Your task to perform on an android device: Turn off the flashlight Image 0: 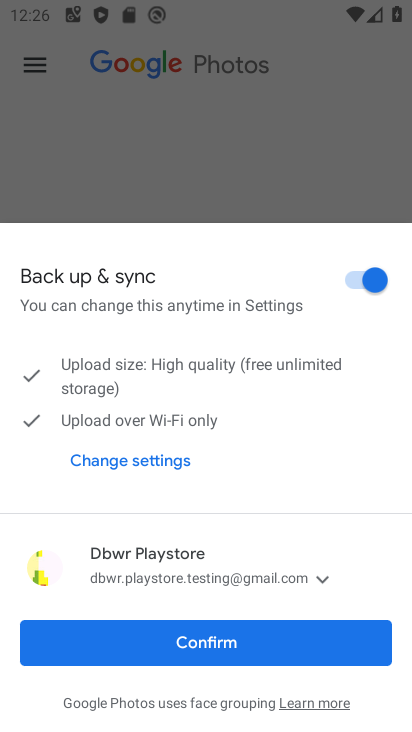
Step 0: press home button
Your task to perform on an android device: Turn off the flashlight Image 1: 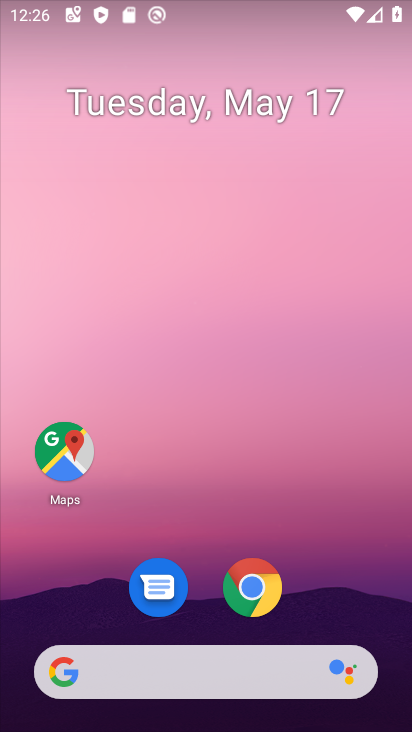
Step 1: drag from (205, 635) to (153, 7)
Your task to perform on an android device: Turn off the flashlight Image 2: 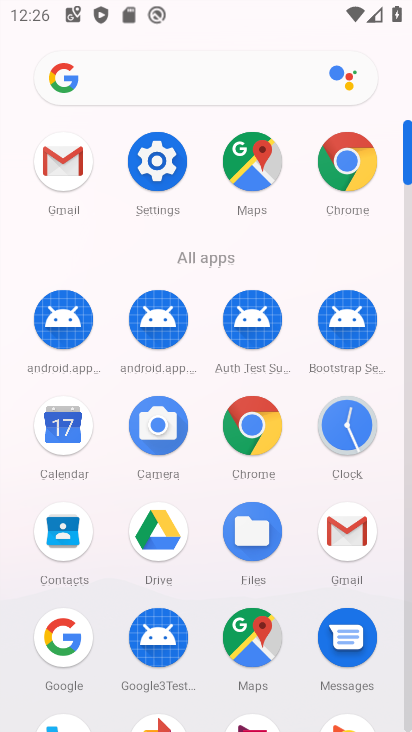
Step 2: click (173, 156)
Your task to perform on an android device: Turn off the flashlight Image 3: 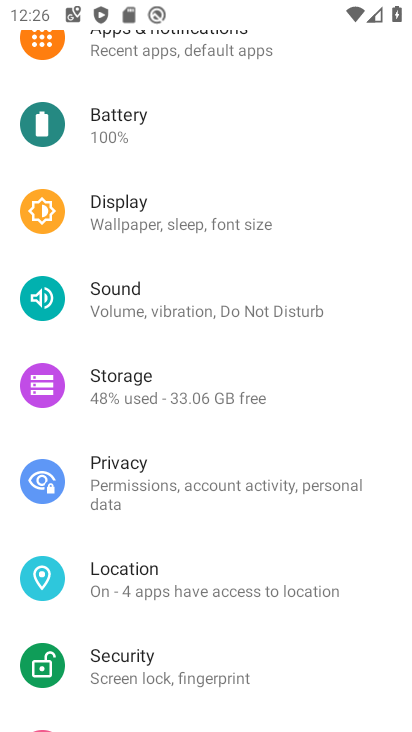
Step 3: task complete